Your task to perform on an android device: turn off smart reply in the gmail app Image 0: 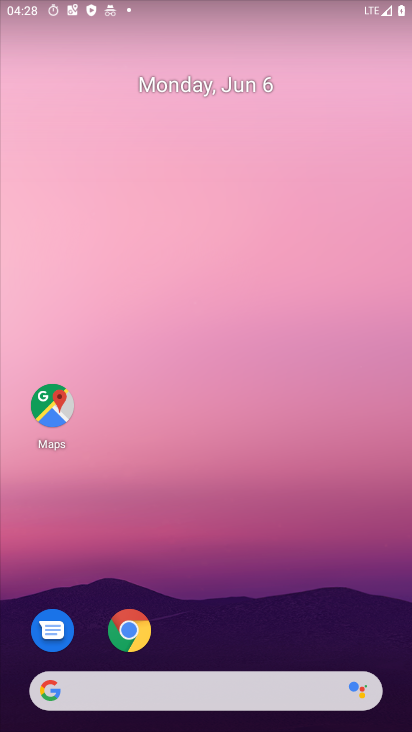
Step 0: drag from (286, 621) to (182, 111)
Your task to perform on an android device: turn off smart reply in the gmail app Image 1: 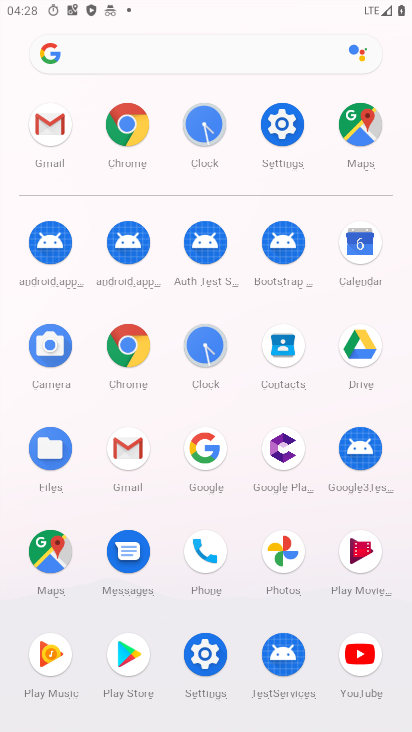
Step 1: click (120, 442)
Your task to perform on an android device: turn off smart reply in the gmail app Image 2: 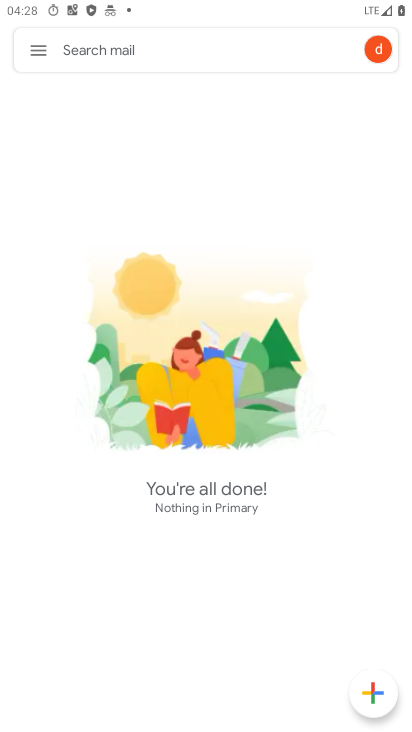
Step 2: click (43, 48)
Your task to perform on an android device: turn off smart reply in the gmail app Image 3: 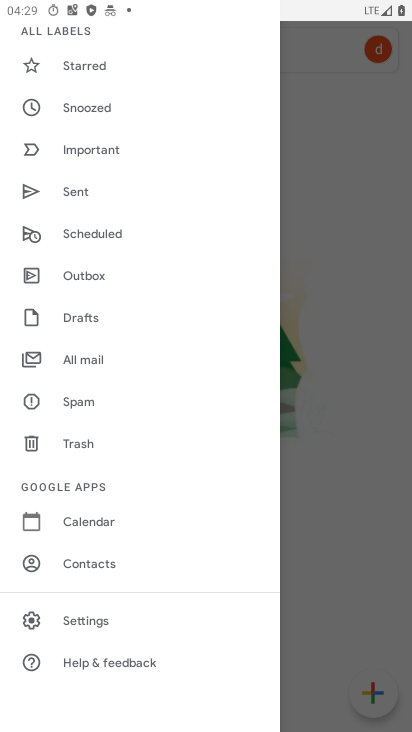
Step 3: click (75, 614)
Your task to perform on an android device: turn off smart reply in the gmail app Image 4: 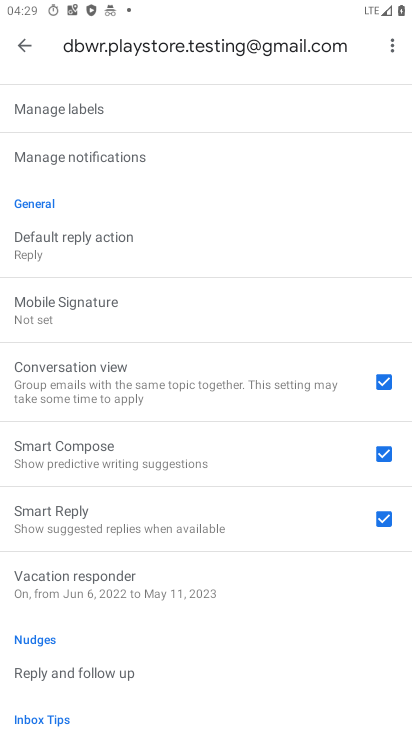
Step 4: click (389, 454)
Your task to perform on an android device: turn off smart reply in the gmail app Image 5: 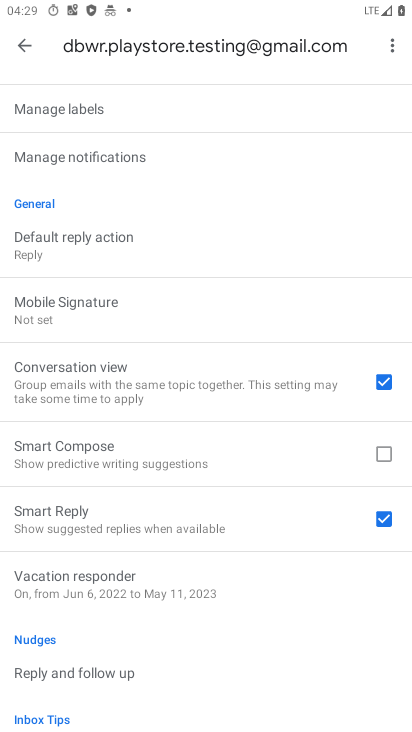
Step 5: task complete